Your task to perform on an android device: Open Yahoo.com Image 0: 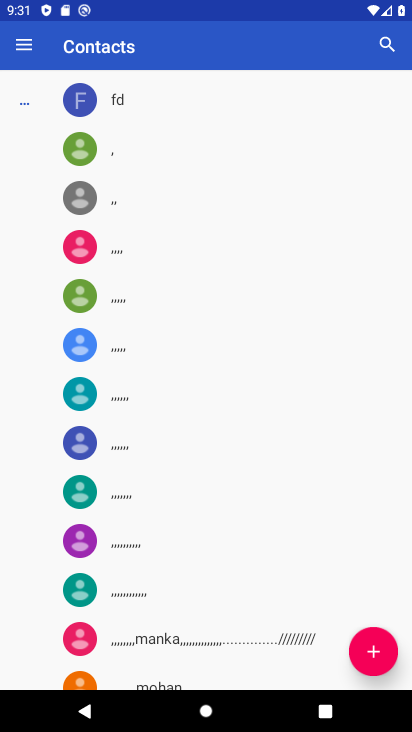
Step 0: press home button
Your task to perform on an android device: Open Yahoo.com Image 1: 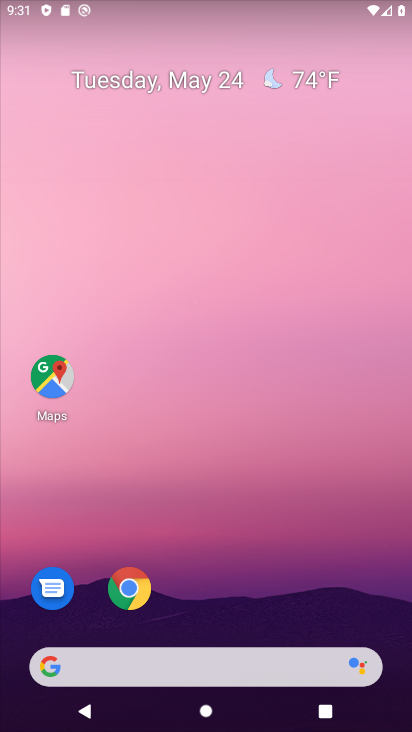
Step 1: click (130, 589)
Your task to perform on an android device: Open Yahoo.com Image 2: 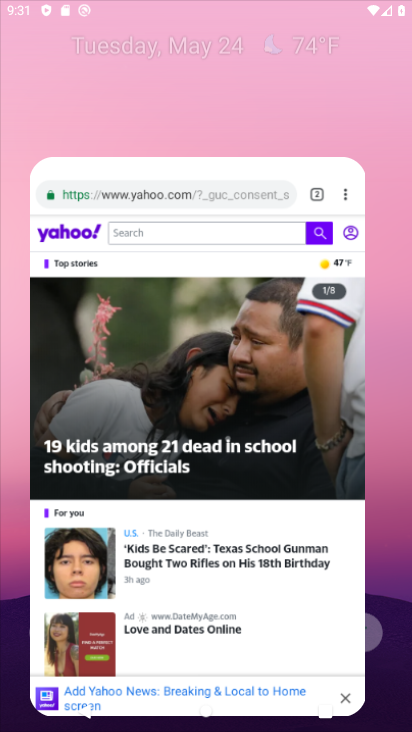
Step 2: click (129, 588)
Your task to perform on an android device: Open Yahoo.com Image 3: 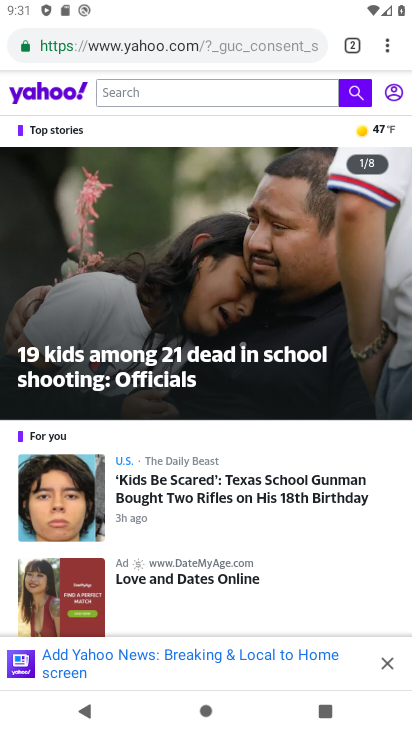
Step 3: task complete